Your task to perform on an android device: Go to Reddit.com Image 0: 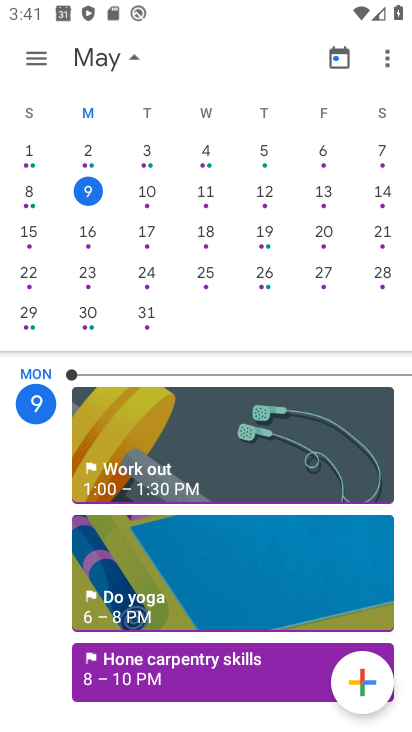
Step 0: press home button
Your task to perform on an android device: Go to Reddit.com Image 1: 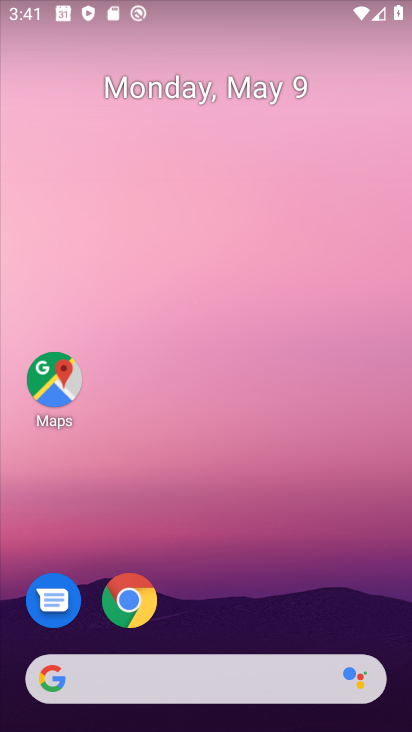
Step 1: drag from (320, 644) to (305, 18)
Your task to perform on an android device: Go to Reddit.com Image 2: 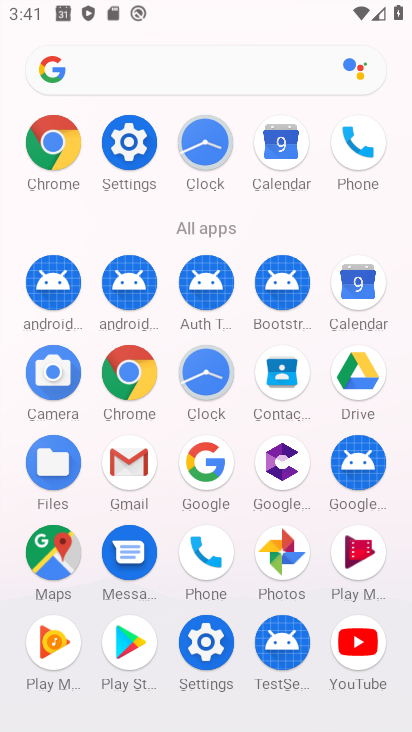
Step 2: click (135, 396)
Your task to perform on an android device: Go to Reddit.com Image 3: 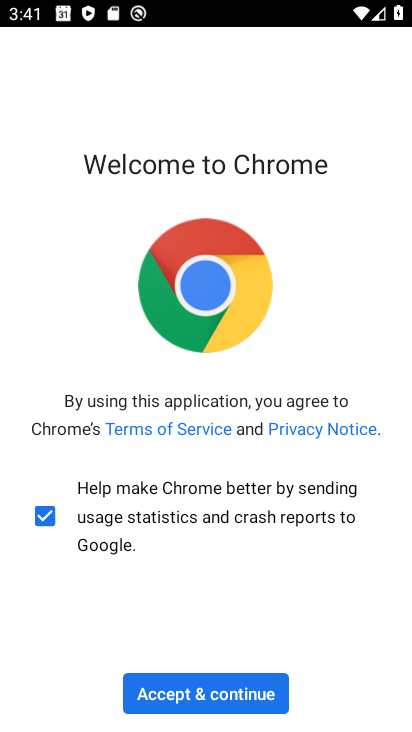
Step 3: click (202, 690)
Your task to perform on an android device: Go to Reddit.com Image 4: 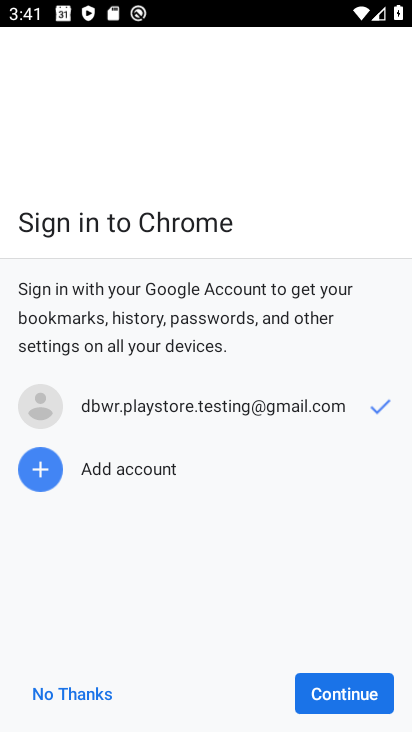
Step 4: click (84, 701)
Your task to perform on an android device: Go to Reddit.com Image 5: 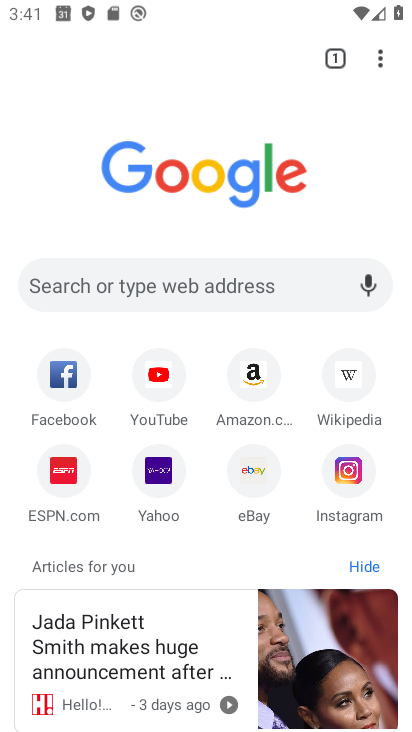
Step 5: click (250, 263)
Your task to perform on an android device: Go to Reddit.com Image 6: 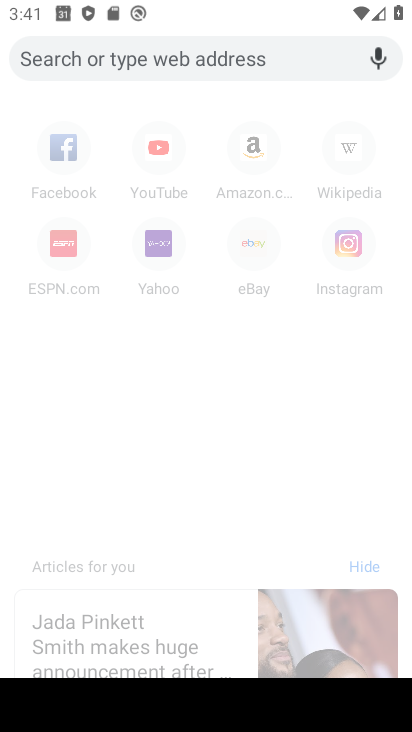
Step 6: type "reddit.com"
Your task to perform on an android device: Go to Reddit.com Image 7: 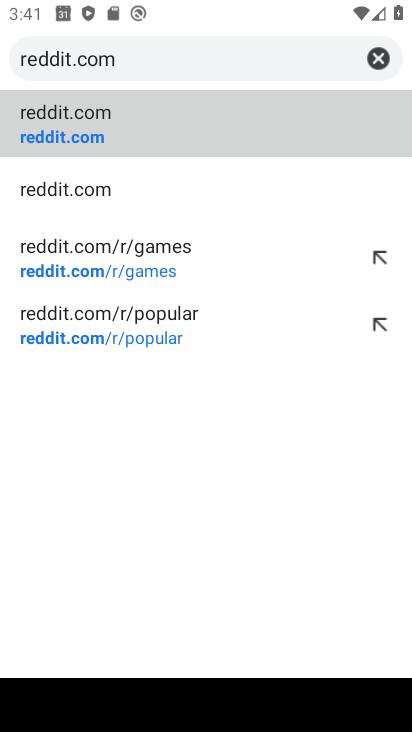
Step 7: click (172, 116)
Your task to perform on an android device: Go to Reddit.com Image 8: 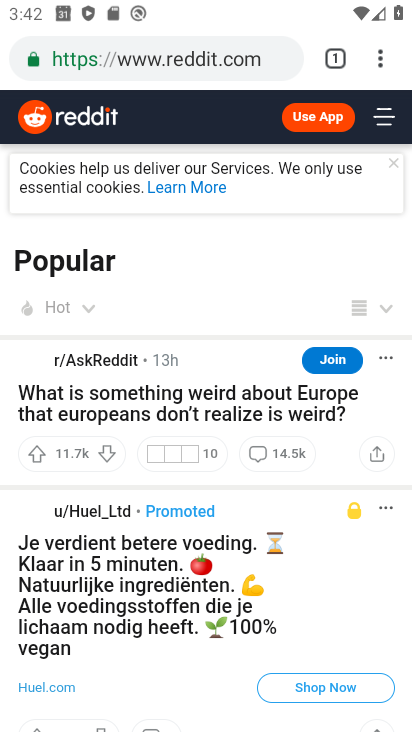
Step 8: task complete